Your task to perform on an android device: Go to privacy settings Image 0: 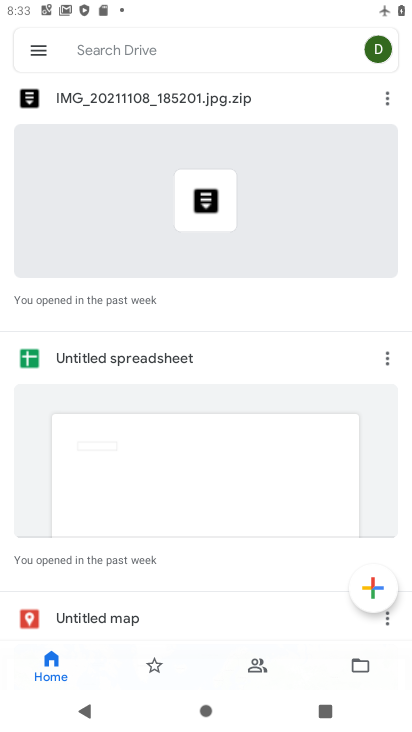
Step 0: press home button
Your task to perform on an android device: Go to privacy settings Image 1: 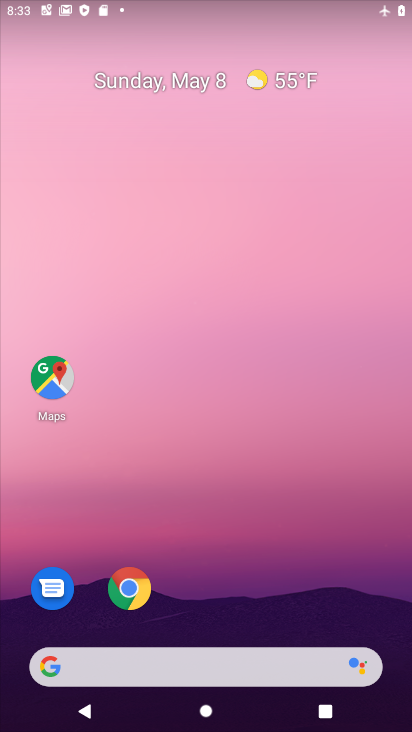
Step 1: drag from (350, 609) to (192, 88)
Your task to perform on an android device: Go to privacy settings Image 2: 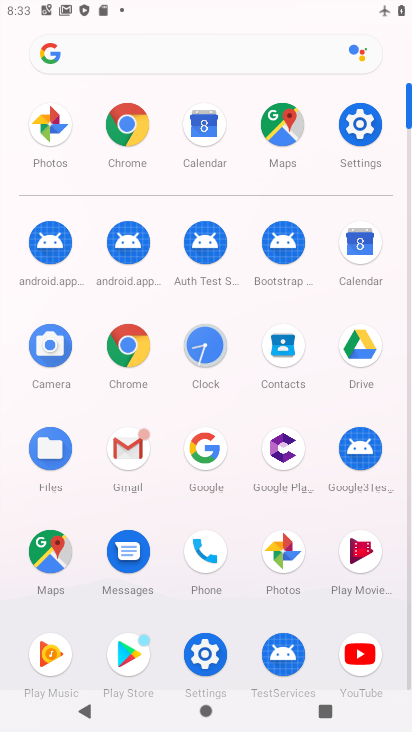
Step 2: click (195, 666)
Your task to perform on an android device: Go to privacy settings Image 3: 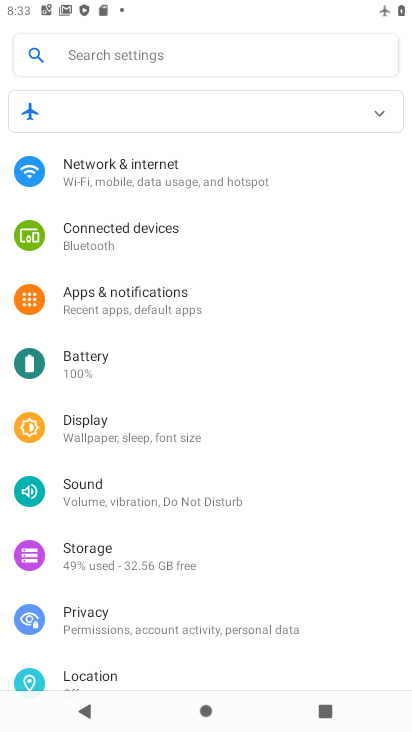
Step 3: click (127, 628)
Your task to perform on an android device: Go to privacy settings Image 4: 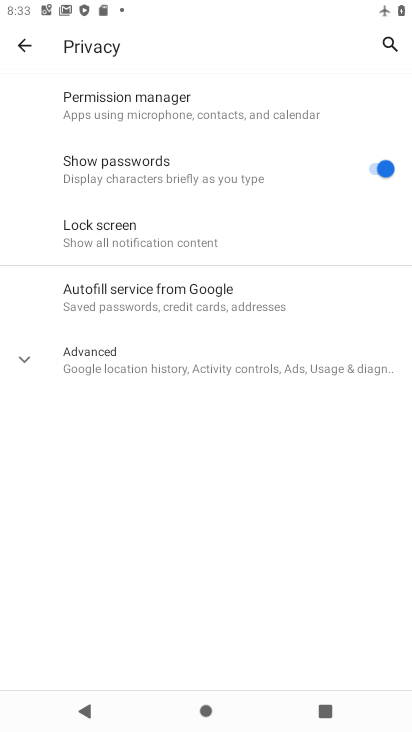
Step 4: click (32, 352)
Your task to perform on an android device: Go to privacy settings Image 5: 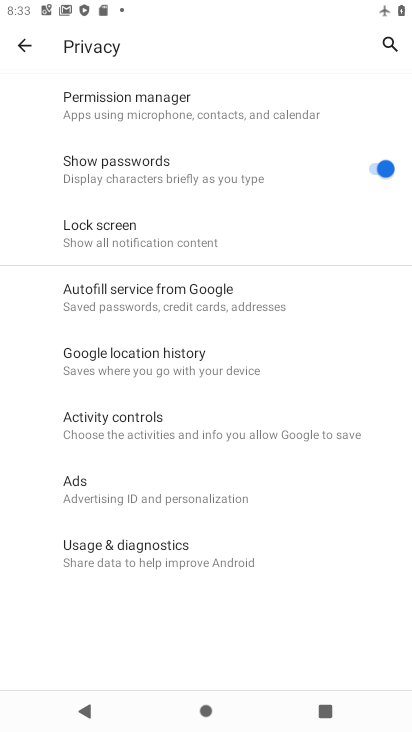
Step 5: task complete